Your task to perform on an android device: allow notifications from all sites in the chrome app Image 0: 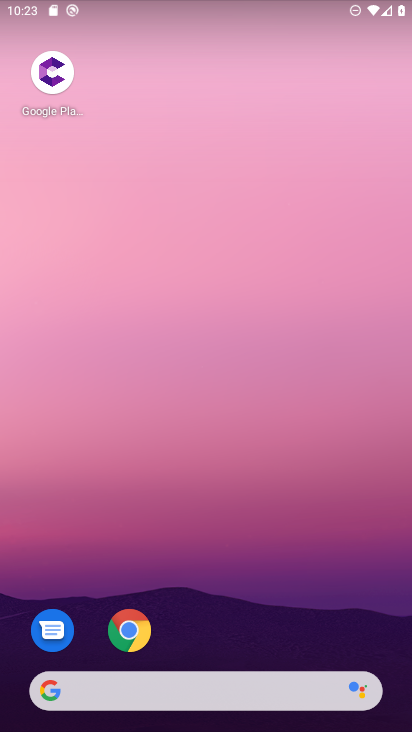
Step 0: click (129, 632)
Your task to perform on an android device: allow notifications from all sites in the chrome app Image 1: 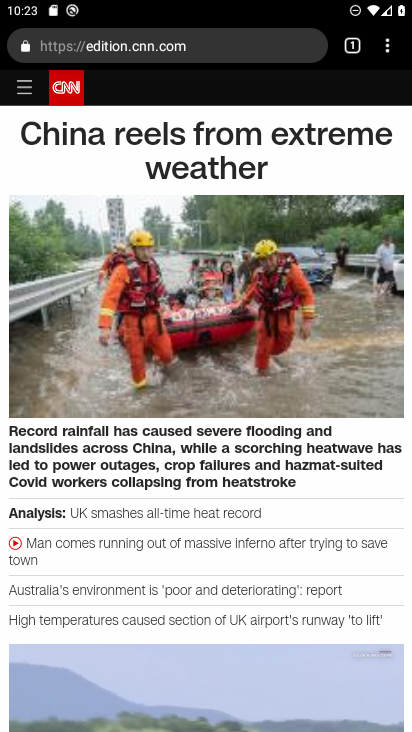
Step 1: click (388, 45)
Your task to perform on an android device: allow notifications from all sites in the chrome app Image 2: 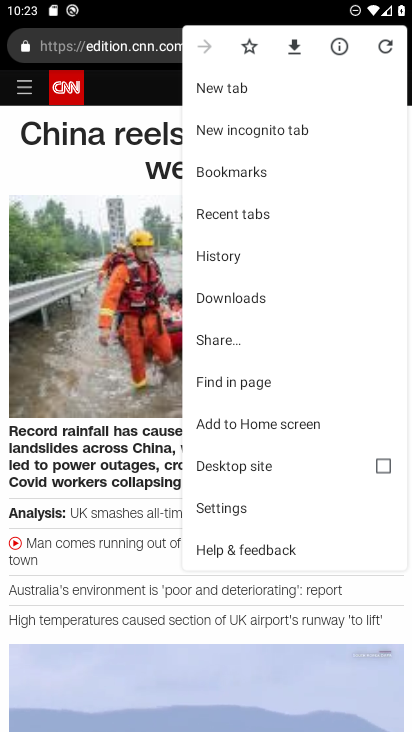
Step 2: click (227, 508)
Your task to perform on an android device: allow notifications from all sites in the chrome app Image 3: 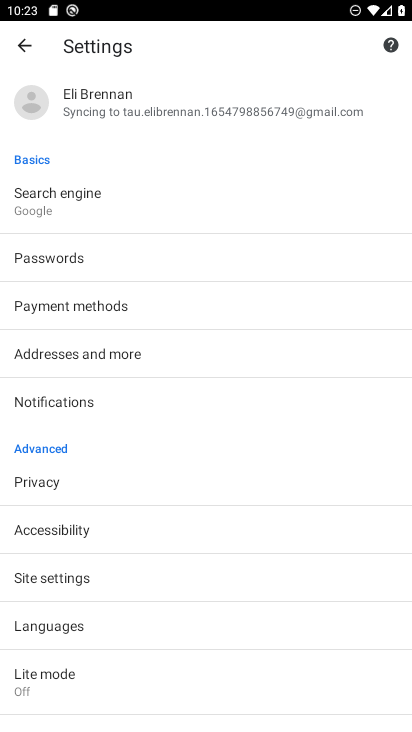
Step 3: click (65, 581)
Your task to perform on an android device: allow notifications from all sites in the chrome app Image 4: 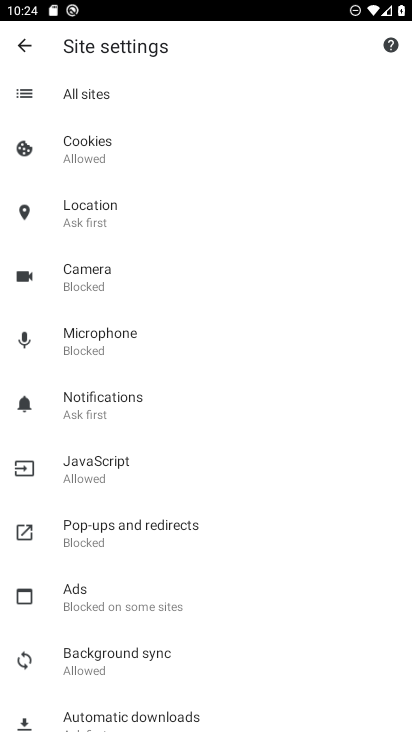
Step 4: click (114, 405)
Your task to perform on an android device: allow notifications from all sites in the chrome app Image 5: 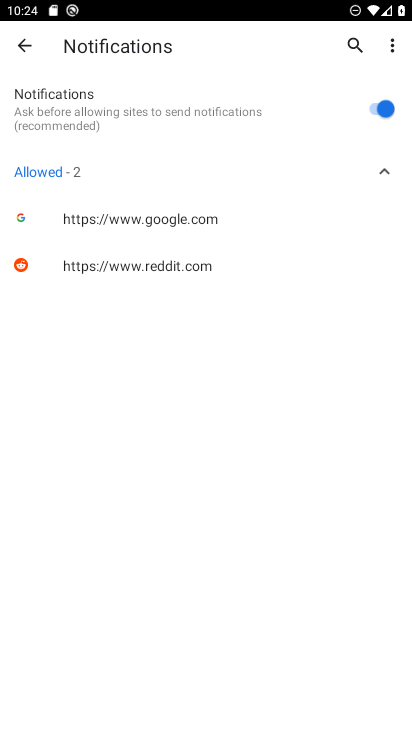
Step 5: task complete